Your task to perform on an android device: Show me popular videos on Youtube Image 0: 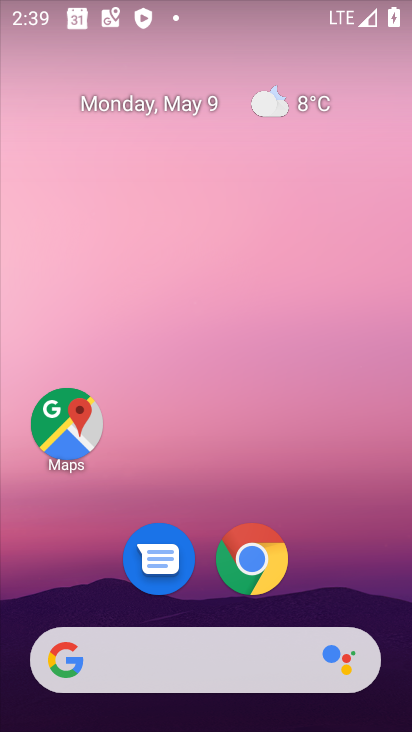
Step 0: drag from (343, 536) to (235, 145)
Your task to perform on an android device: Show me popular videos on Youtube Image 1: 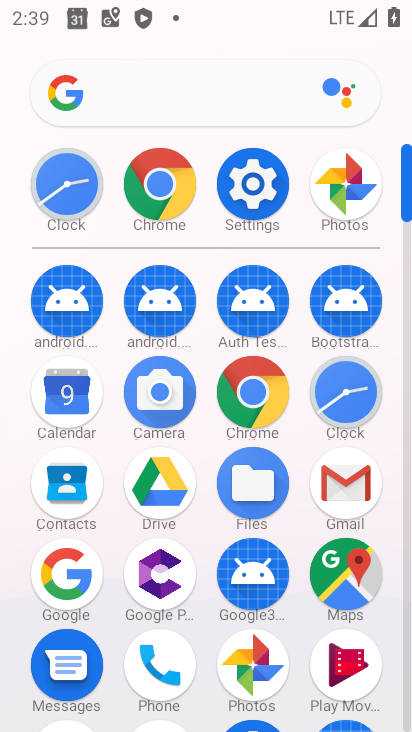
Step 1: click (410, 609)
Your task to perform on an android device: Show me popular videos on Youtube Image 2: 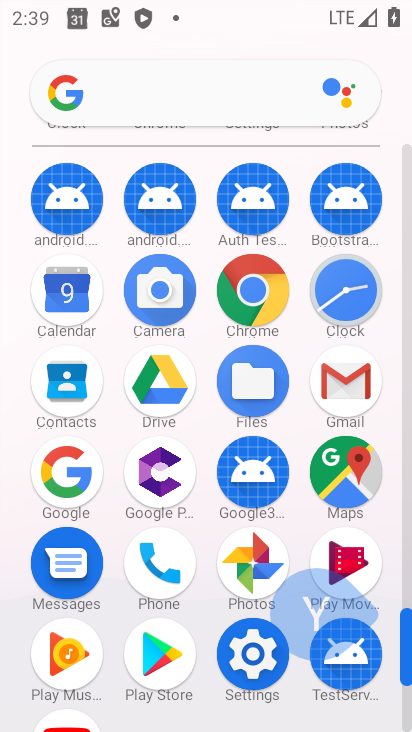
Step 2: click (410, 609)
Your task to perform on an android device: Show me popular videos on Youtube Image 3: 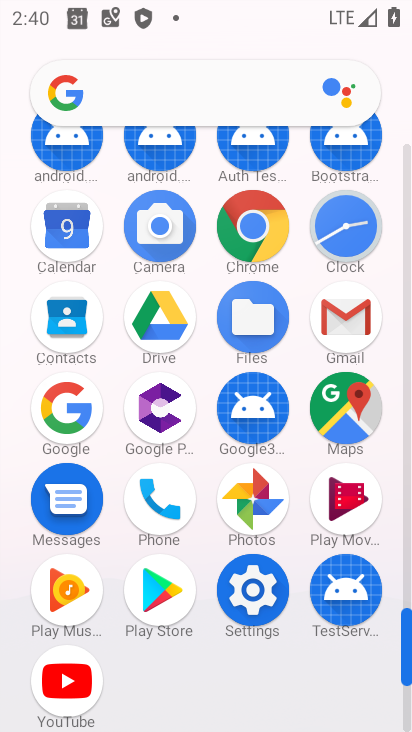
Step 3: click (54, 684)
Your task to perform on an android device: Show me popular videos on Youtube Image 4: 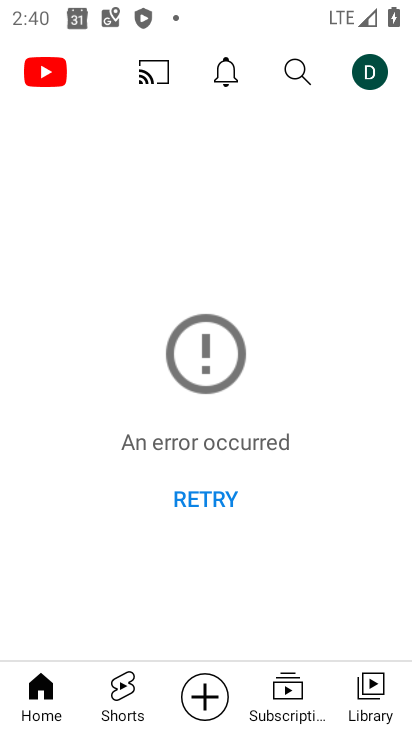
Step 4: click (41, 693)
Your task to perform on an android device: Show me popular videos on Youtube Image 5: 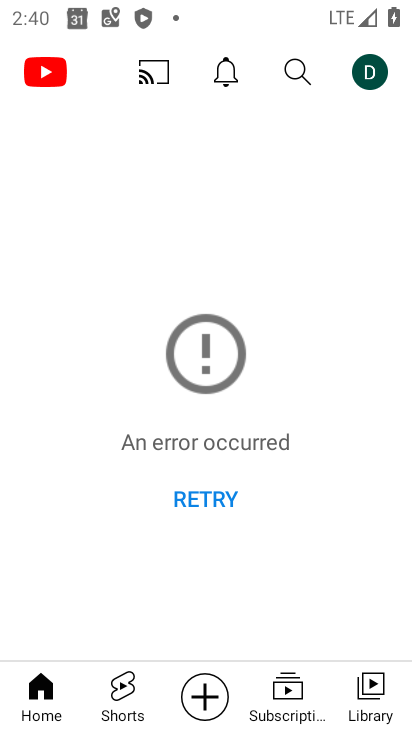
Step 5: task complete